Your task to perform on an android device: Open Yahoo.com Image 0: 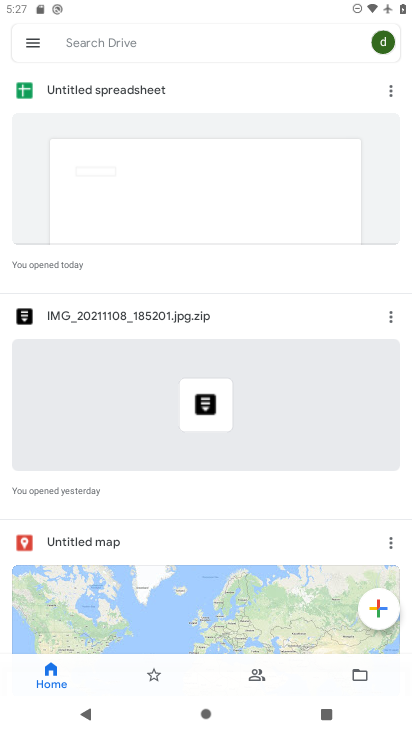
Step 0: press back button
Your task to perform on an android device: Open Yahoo.com Image 1: 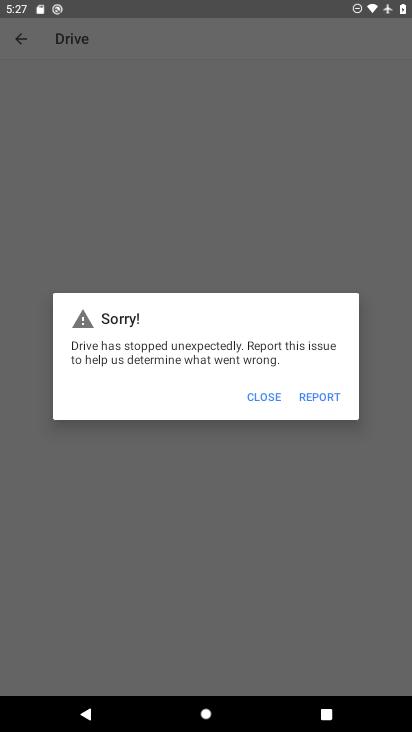
Step 1: press home button
Your task to perform on an android device: Open Yahoo.com Image 2: 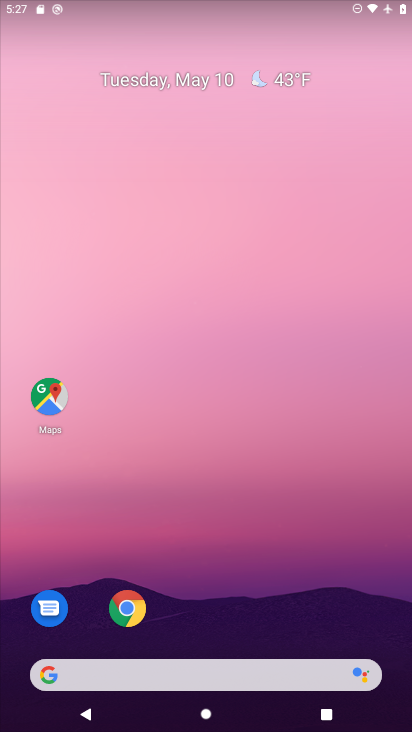
Step 2: click (124, 607)
Your task to perform on an android device: Open Yahoo.com Image 3: 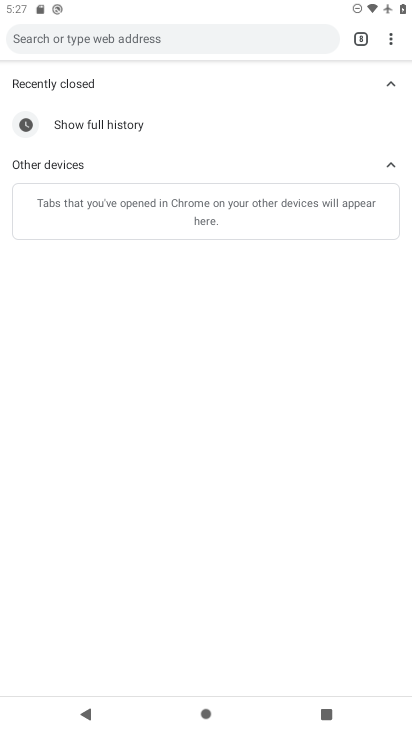
Step 3: click (364, 40)
Your task to perform on an android device: Open Yahoo.com Image 4: 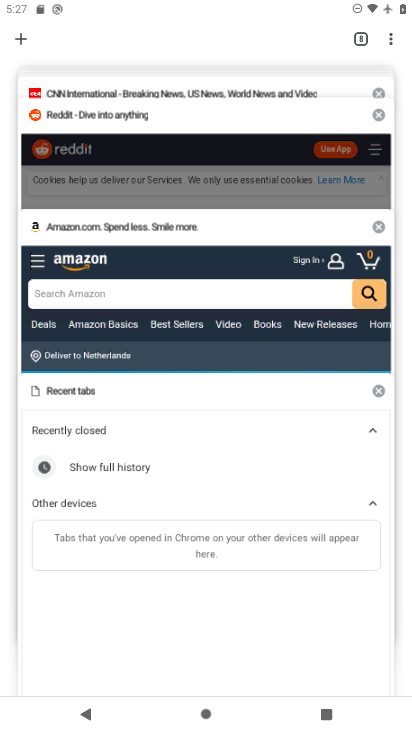
Step 4: click (15, 44)
Your task to perform on an android device: Open Yahoo.com Image 5: 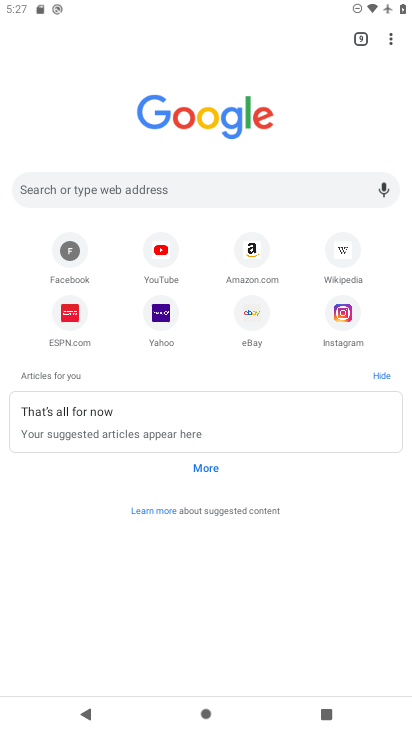
Step 5: click (175, 318)
Your task to perform on an android device: Open Yahoo.com Image 6: 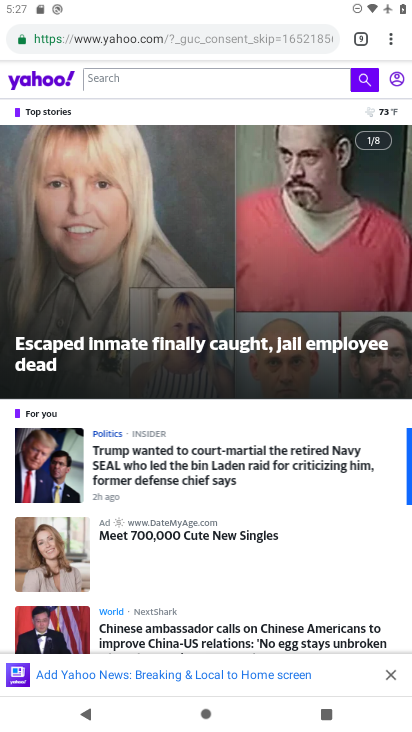
Step 6: task complete